Your task to perform on an android device: turn on translation in the chrome app Image 0: 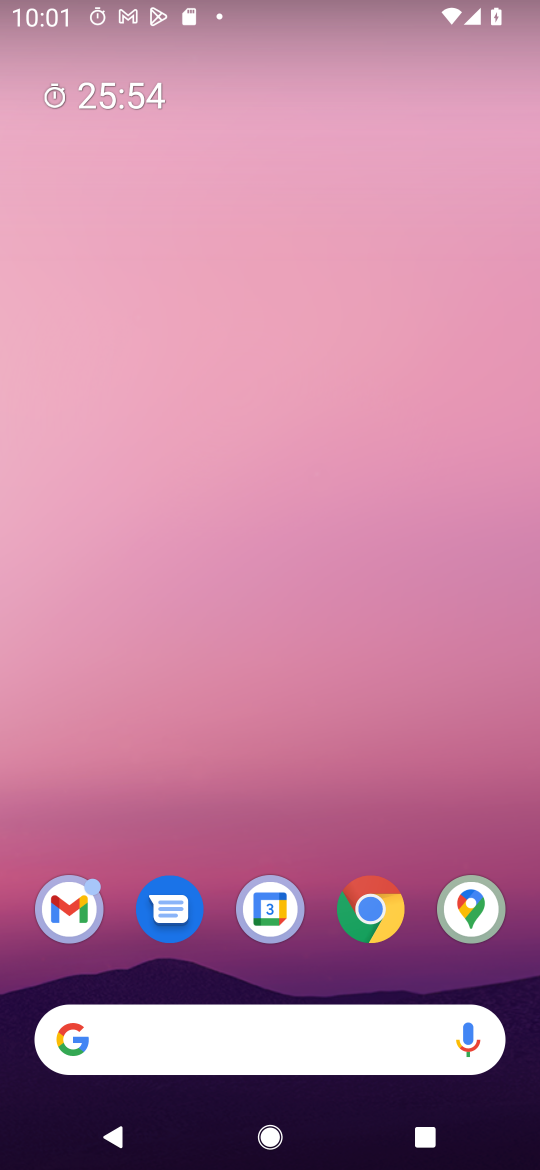
Step 0: drag from (439, 792) to (458, 345)
Your task to perform on an android device: turn on translation in the chrome app Image 1: 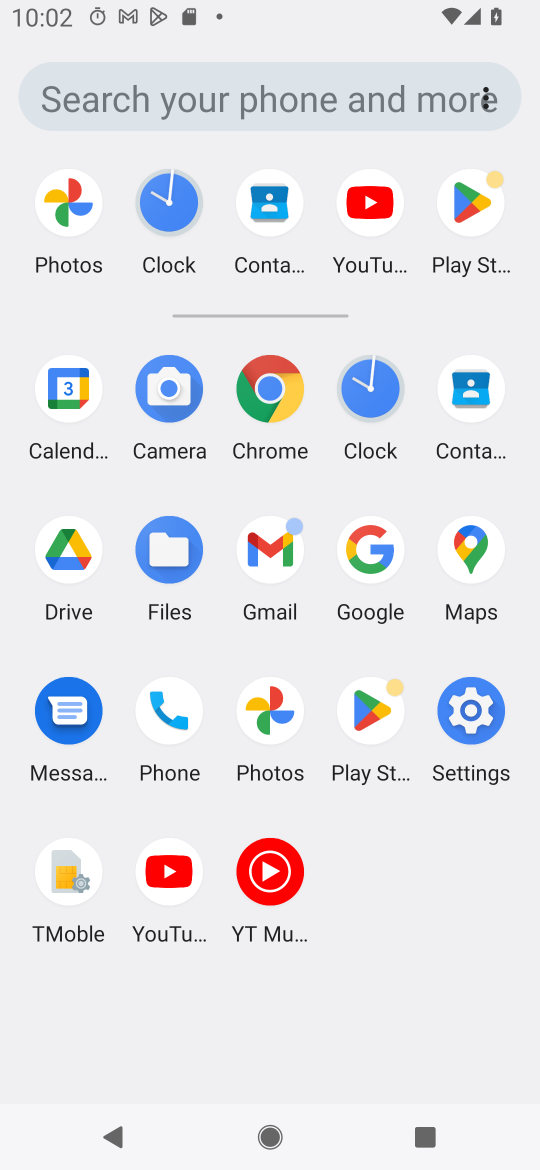
Step 1: click (275, 383)
Your task to perform on an android device: turn on translation in the chrome app Image 2: 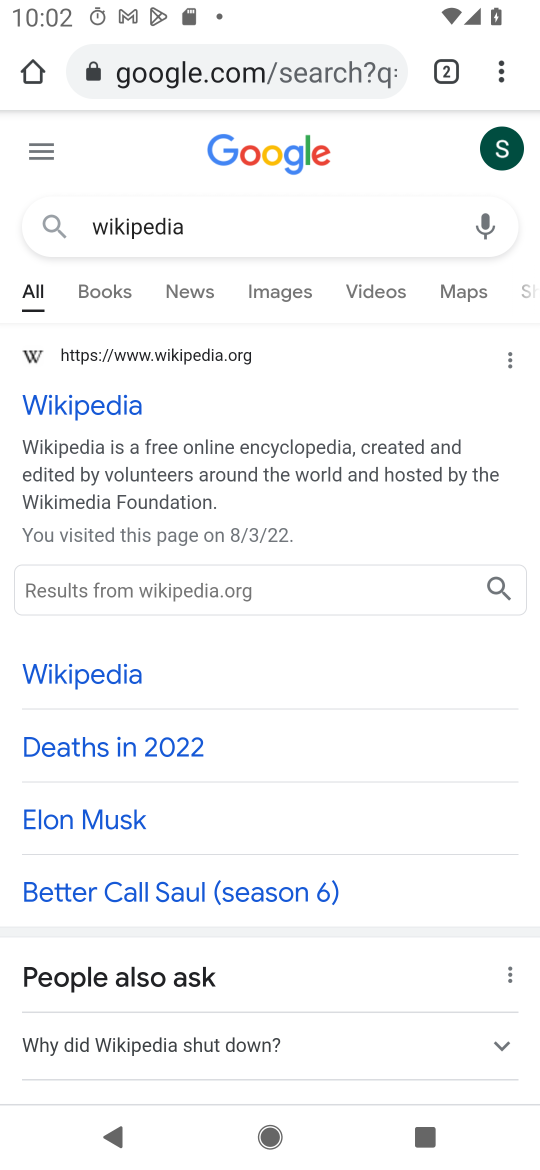
Step 2: click (500, 76)
Your task to perform on an android device: turn on translation in the chrome app Image 3: 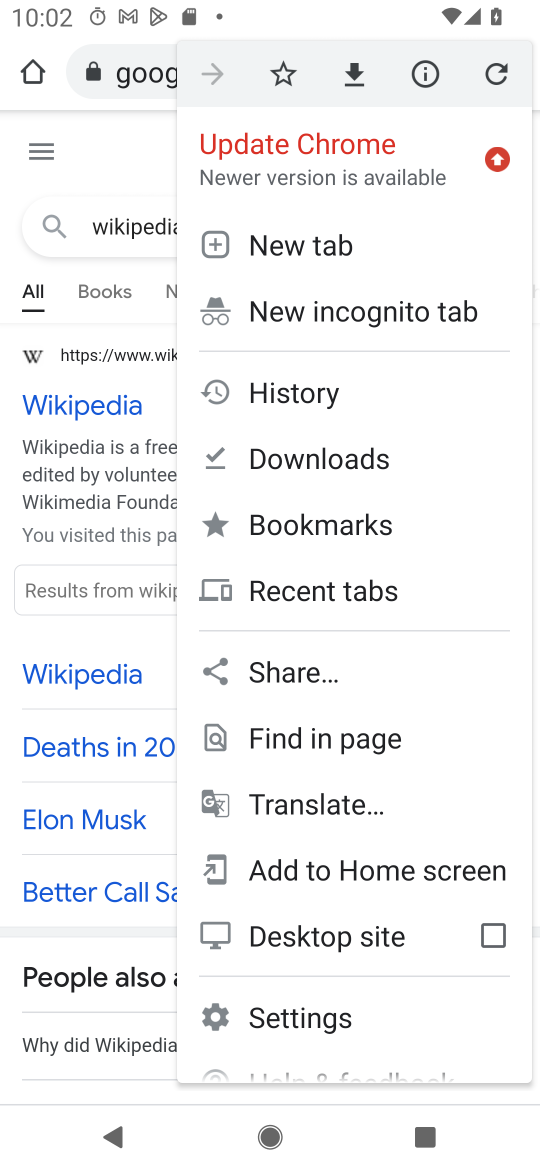
Step 3: drag from (457, 720) to (481, 504)
Your task to perform on an android device: turn on translation in the chrome app Image 4: 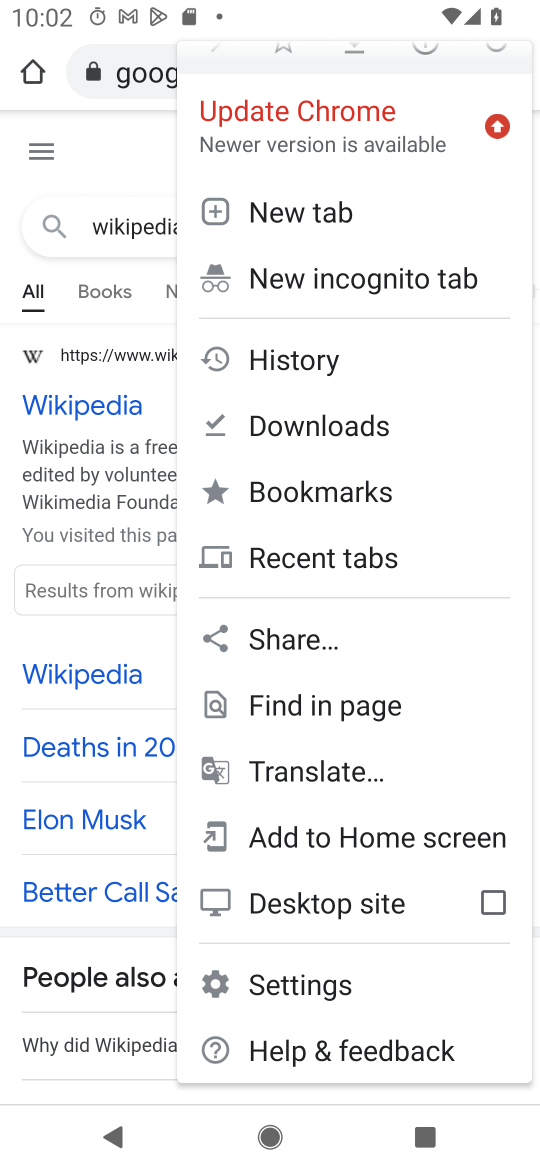
Step 4: click (341, 983)
Your task to perform on an android device: turn on translation in the chrome app Image 5: 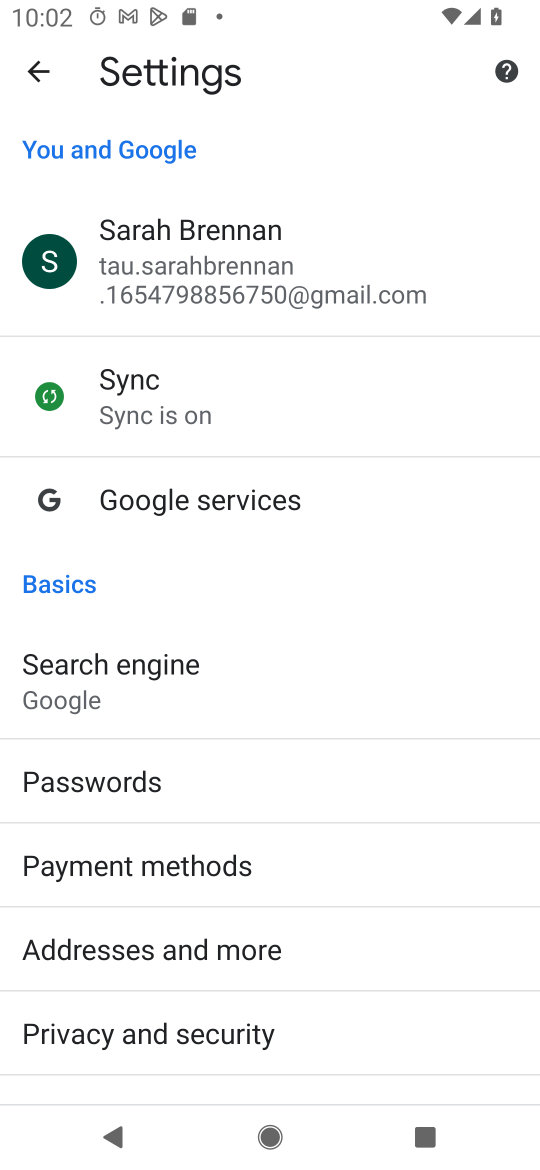
Step 5: drag from (386, 957) to (391, 813)
Your task to perform on an android device: turn on translation in the chrome app Image 6: 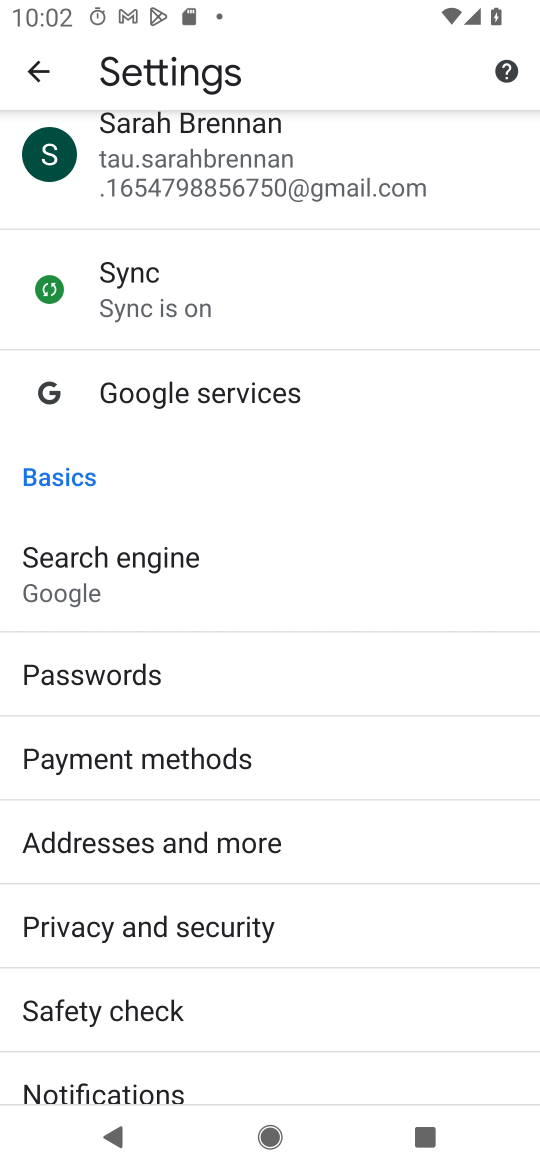
Step 6: drag from (411, 935) to (443, 761)
Your task to perform on an android device: turn on translation in the chrome app Image 7: 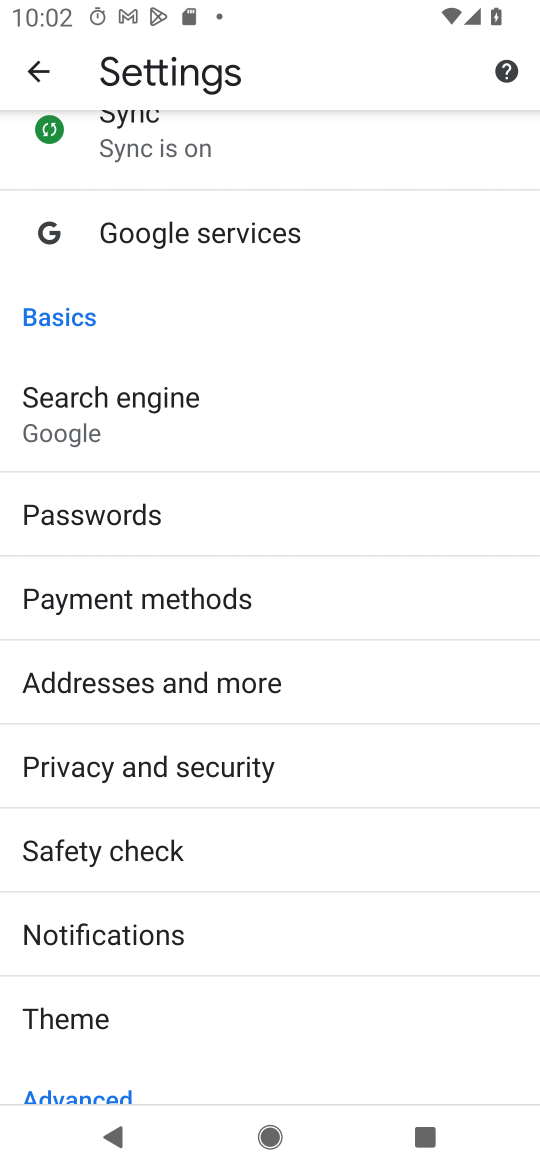
Step 7: drag from (420, 987) to (444, 797)
Your task to perform on an android device: turn on translation in the chrome app Image 8: 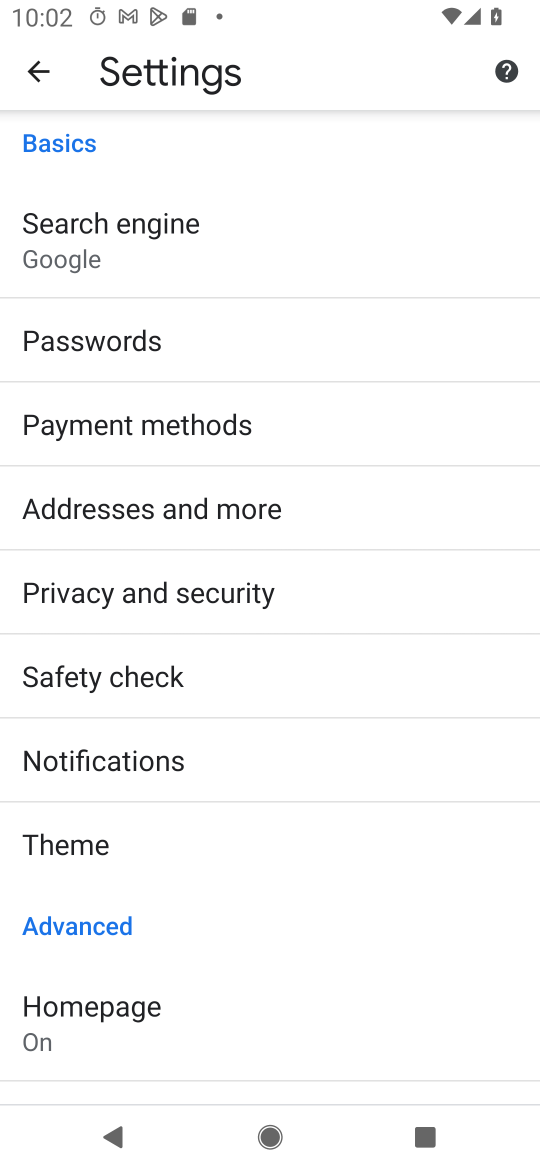
Step 8: drag from (432, 855) to (438, 697)
Your task to perform on an android device: turn on translation in the chrome app Image 9: 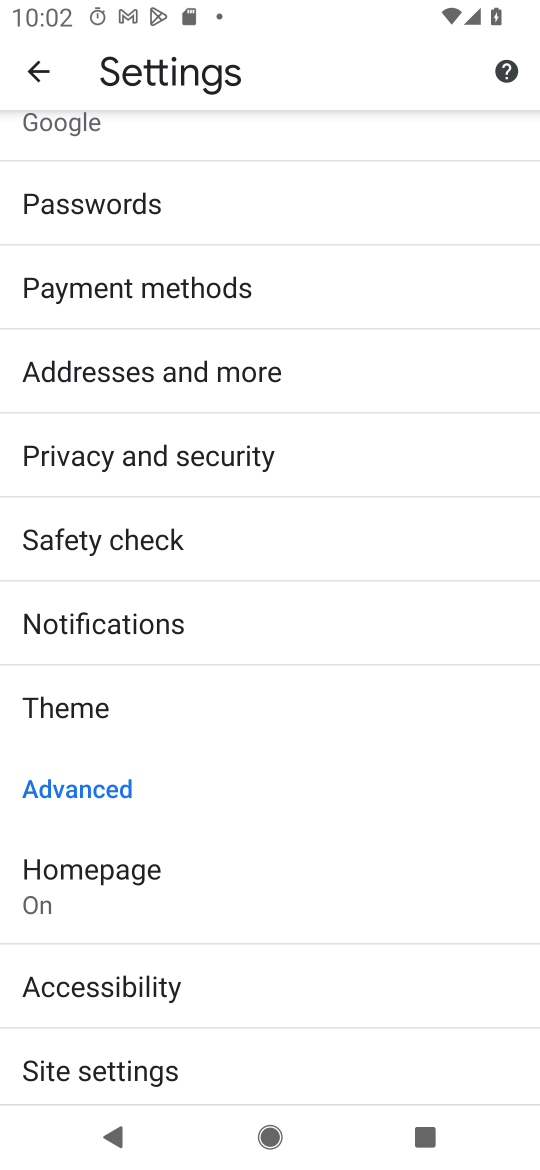
Step 9: drag from (407, 842) to (409, 702)
Your task to perform on an android device: turn on translation in the chrome app Image 10: 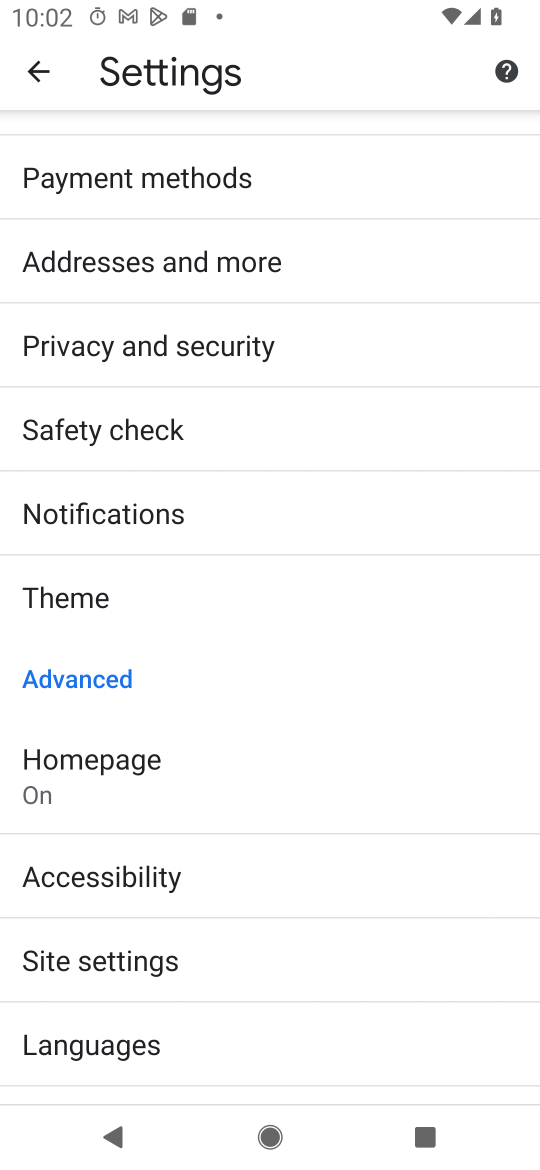
Step 10: drag from (404, 911) to (403, 737)
Your task to perform on an android device: turn on translation in the chrome app Image 11: 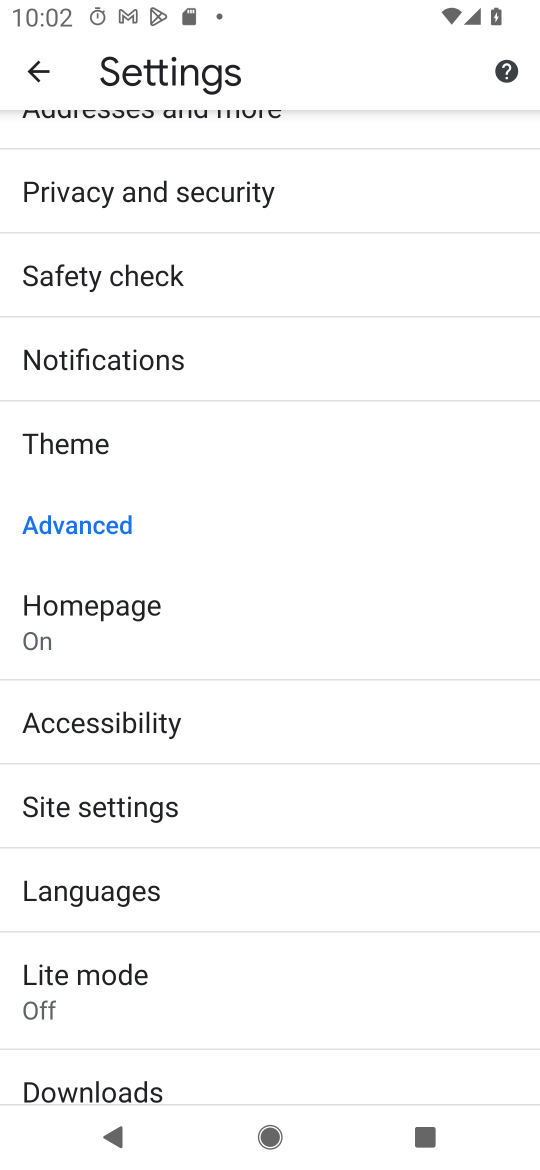
Step 11: click (405, 898)
Your task to perform on an android device: turn on translation in the chrome app Image 12: 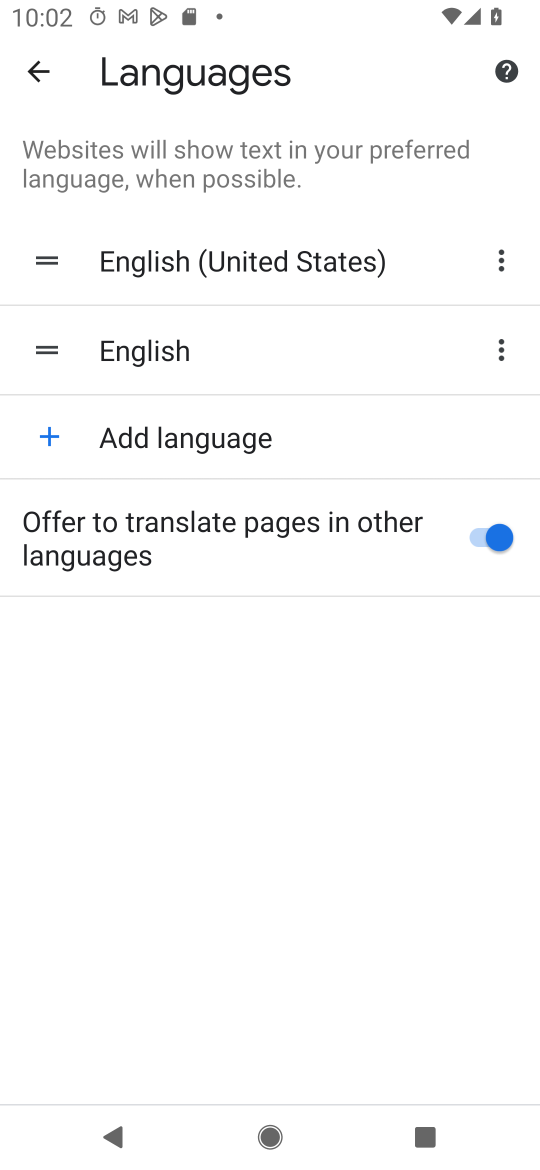
Step 12: task complete